Your task to perform on an android device: Open display settings Image 0: 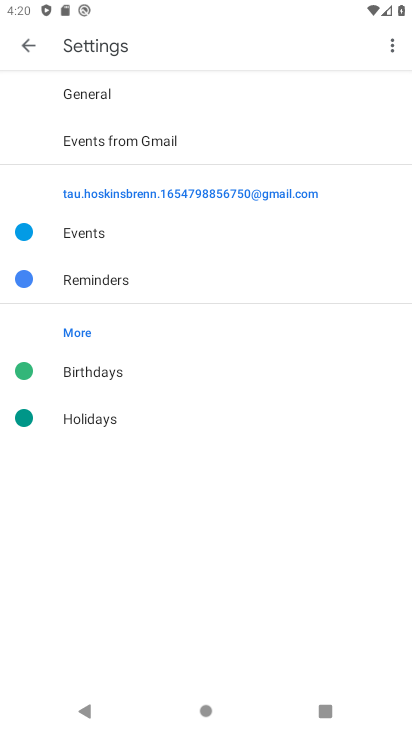
Step 0: click (17, 50)
Your task to perform on an android device: Open display settings Image 1: 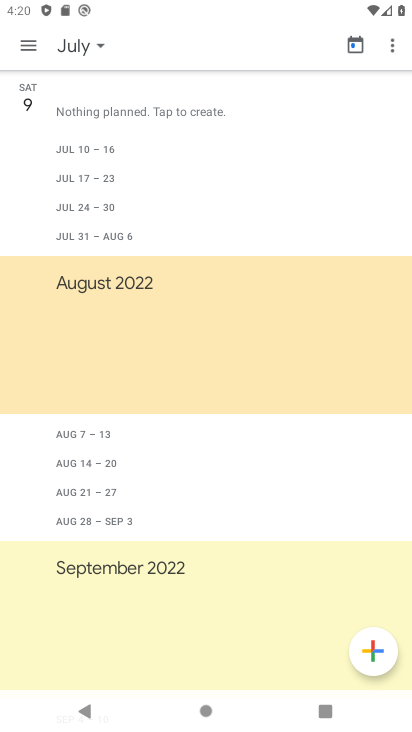
Step 1: press back button
Your task to perform on an android device: Open display settings Image 2: 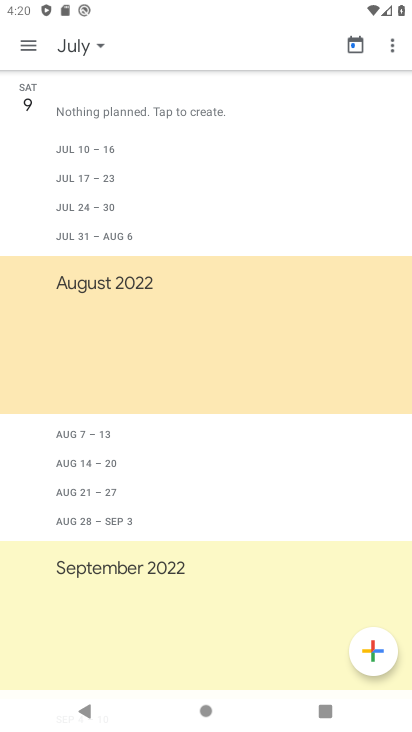
Step 2: press back button
Your task to perform on an android device: Open display settings Image 3: 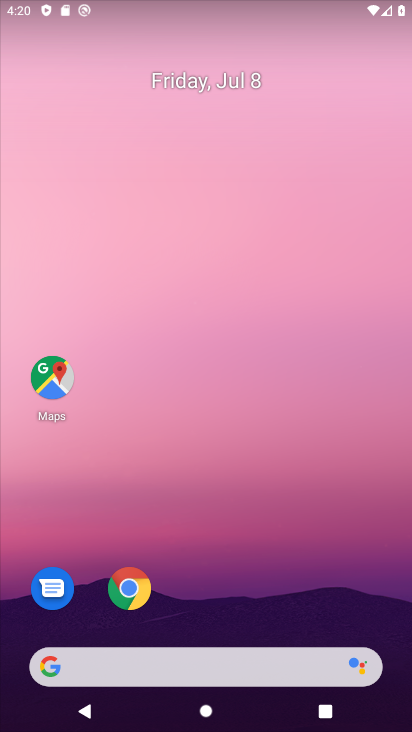
Step 3: press home button
Your task to perform on an android device: Open display settings Image 4: 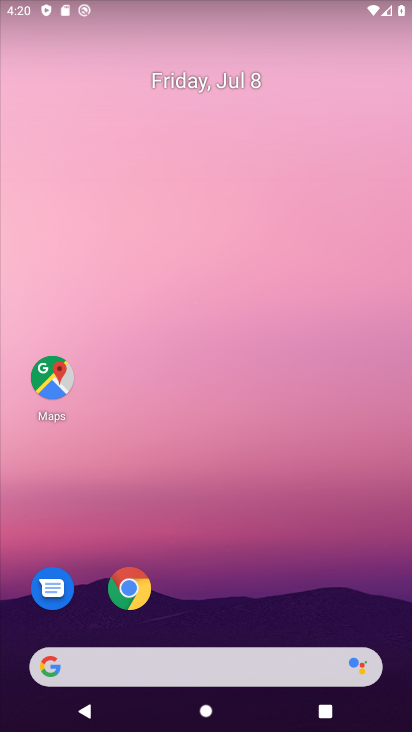
Step 4: click (216, 5)
Your task to perform on an android device: Open display settings Image 5: 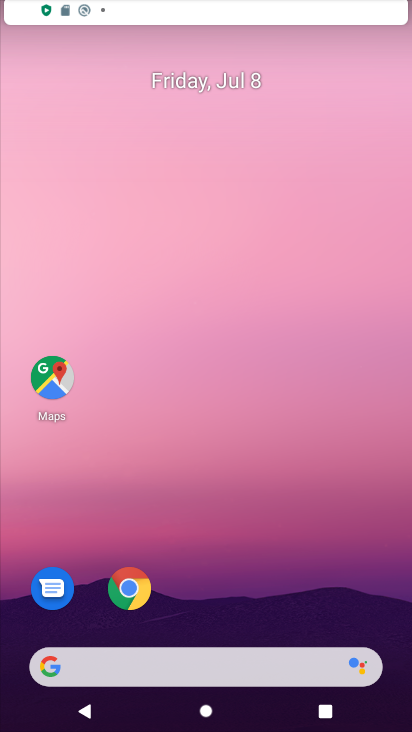
Step 5: drag from (228, 250) to (207, 116)
Your task to perform on an android device: Open display settings Image 6: 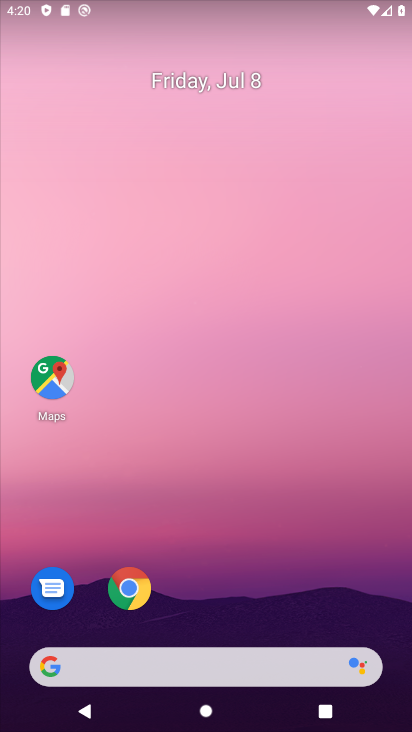
Step 6: drag from (267, 663) to (304, 321)
Your task to perform on an android device: Open display settings Image 7: 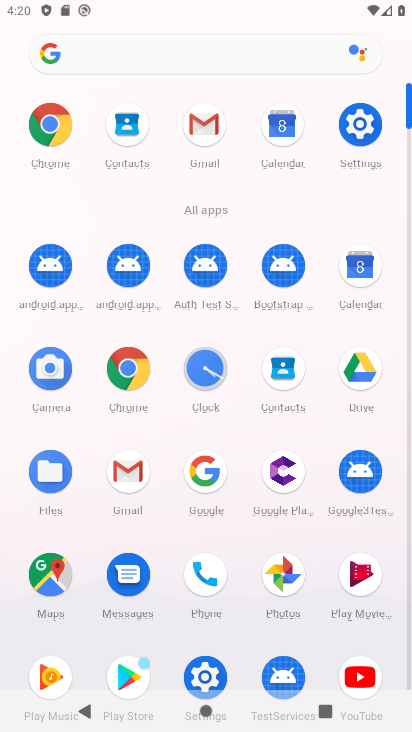
Step 7: click (361, 116)
Your task to perform on an android device: Open display settings Image 8: 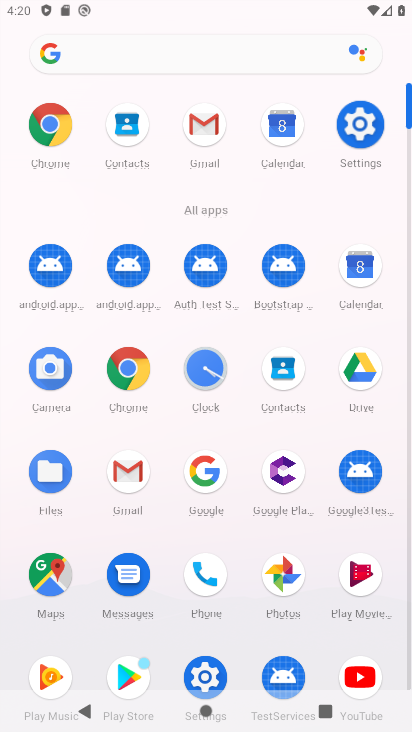
Step 8: click (372, 109)
Your task to perform on an android device: Open display settings Image 9: 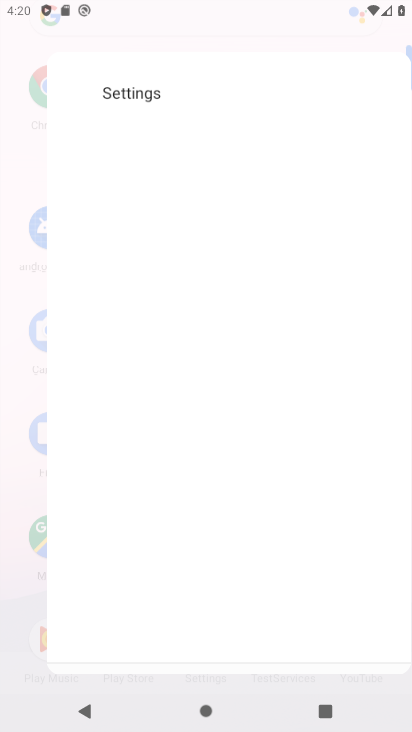
Step 9: click (376, 109)
Your task to perform on an android device: Open display settings Image 10: 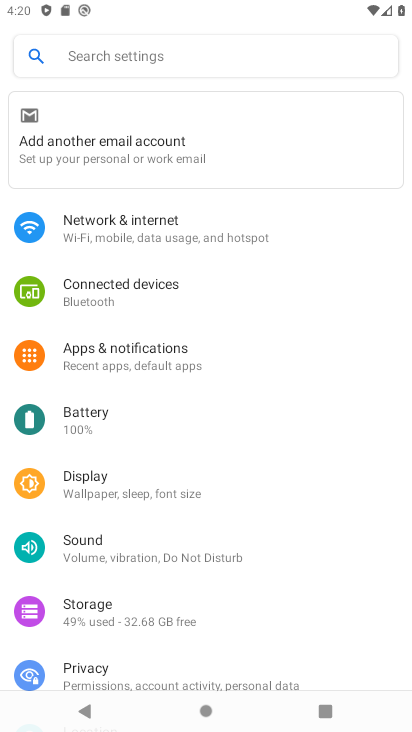
Step 10: click (76, 484)
Your task to perform on an android device: Open display settings Image 11: 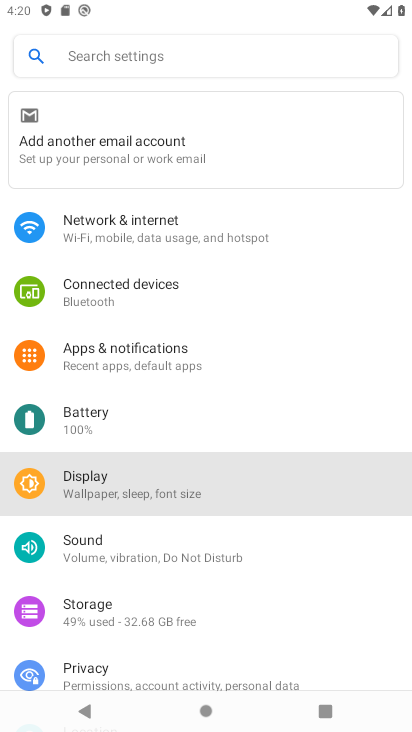
Step 11: click (79, 477)
Your task to perform on an android device: Open display settings Image 12: 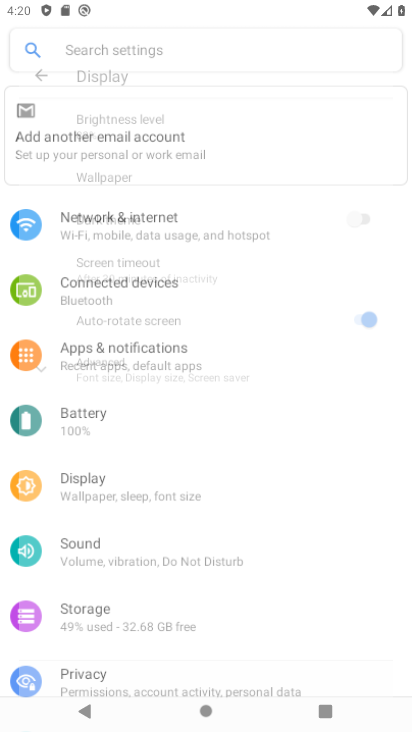
Step 12: click (80, 477)
Your task to perform on an android device: Open display settings Image 13: 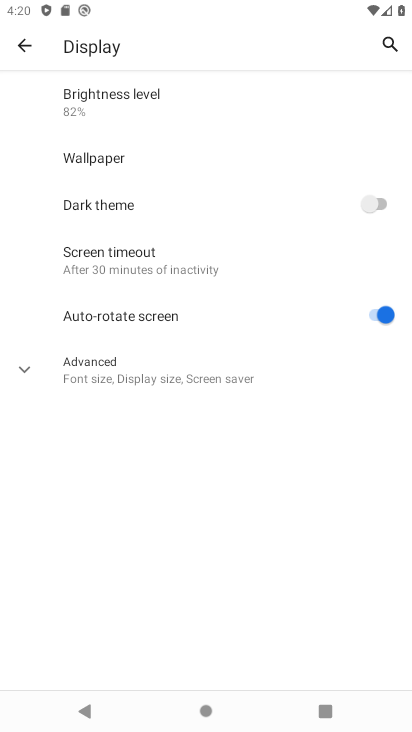
Step 13: click (80, 477)
Your task to perform on an android device: Open display settings Image 14: 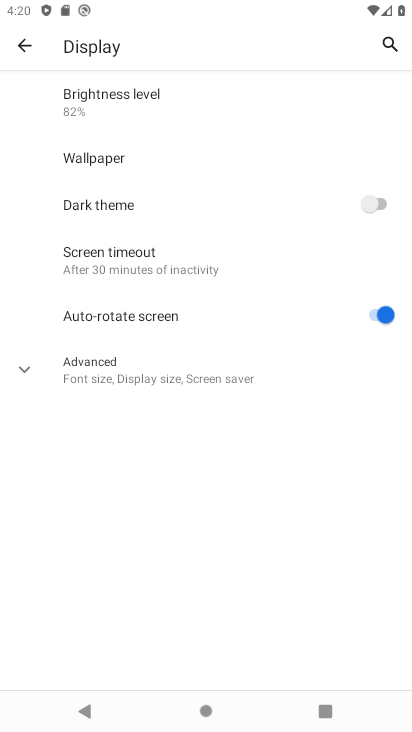
Step 14: click (80, 477)
Your task to perform on an android device: Open display settings Image 15: 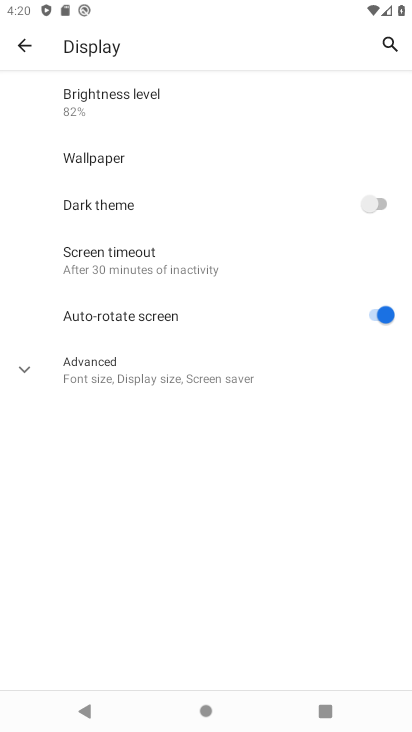
Step 15: task complete